Your task to perform on an android device: turn off location history Image 0: 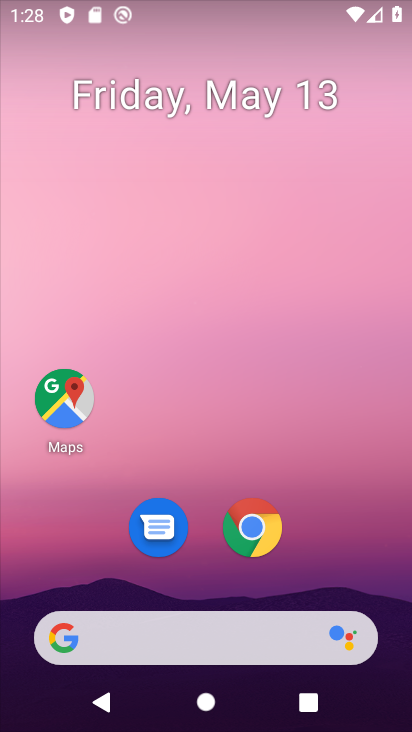
Step 0: drag from (189, 585) to (244, 12)
Your task to perform on an android device: turn off location history Image 1: 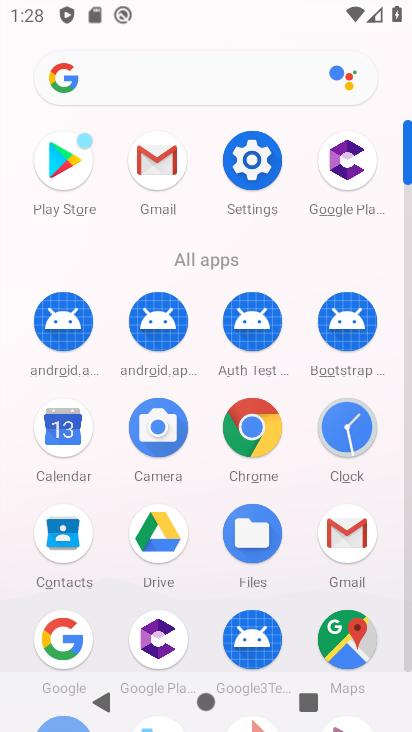
Step 1: click (247, 173)
Your task to perform on an android device: turn off location history Image 2: 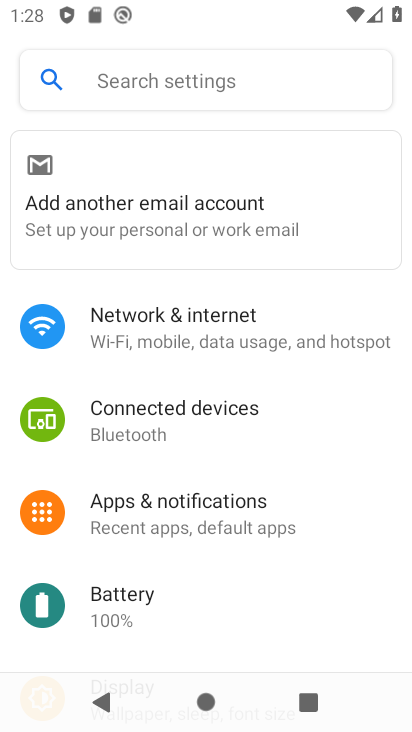
Step 2: drag from (115, 604) to (182, 331)
Your task to perform on an android device: turn off location history Image 3: 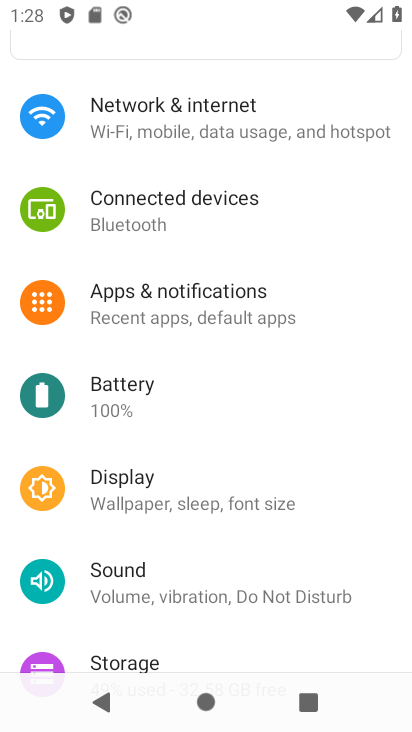
Step 3: drag from (153, 565) to (198, 95)
Your task to perform on an android device: turn off location history Image 4: 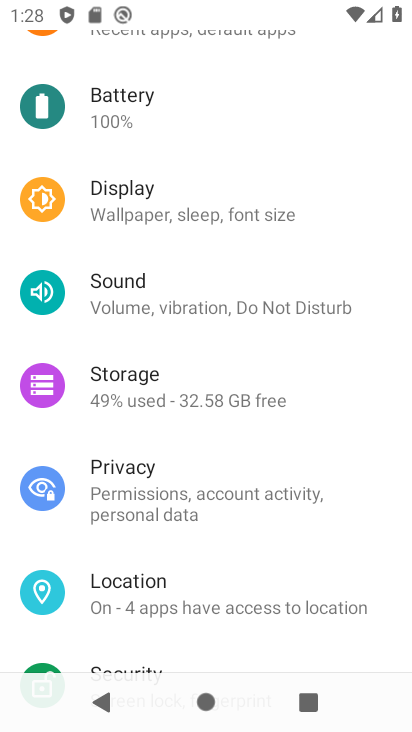
Step 4: click (135, 576)
Your task to perform on an android device: turn off location history Image 5: 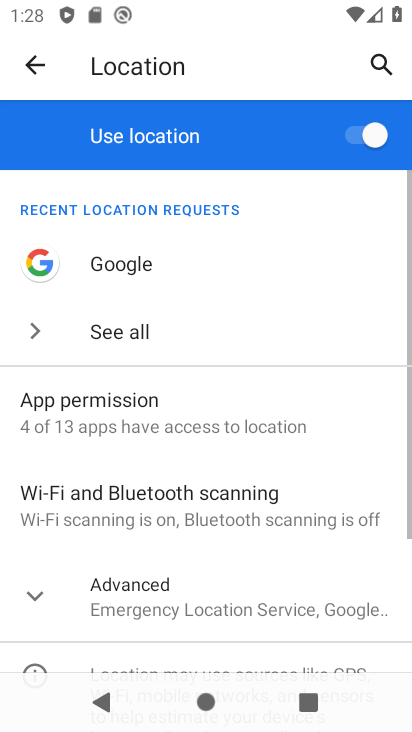
Step 5: drag from (135, 576) to (249, 20)
Your task to perform on an android device: turn off location history Image 6: 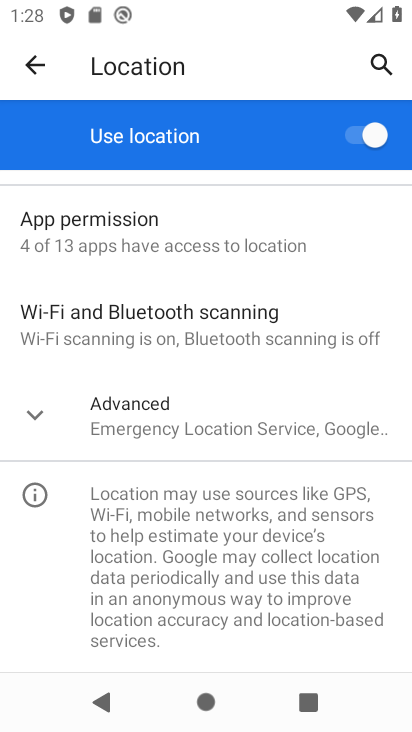
Step 6: drag from (236, 557) to (270, 410)
Your task to perform on an android device: turn off location history Image 7: 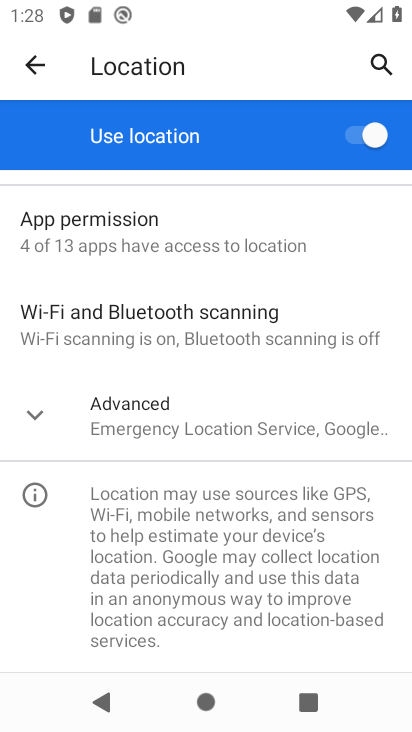
Step 7: click (205, 429)
Your task to perform on an android device: turn off location history Image 8: 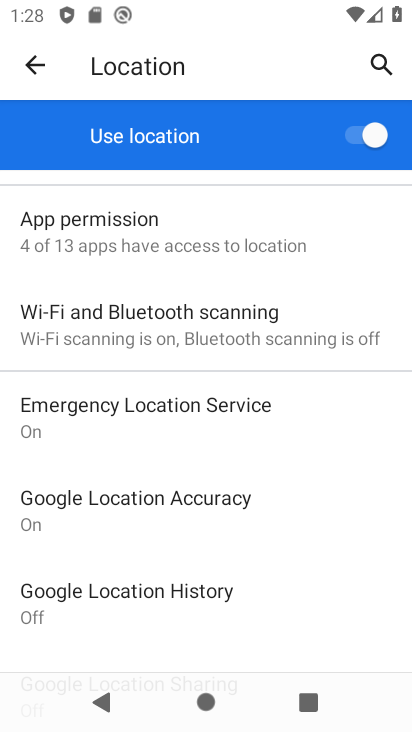
Step 8: click (144, 595)
Your task to perform on an android device: turn off location history Image 9: 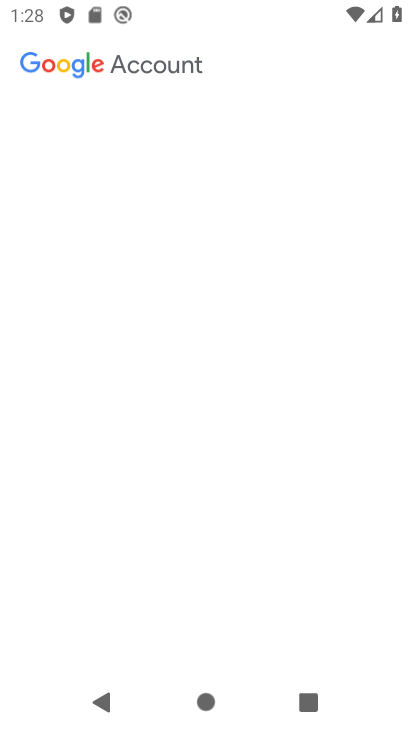
Step 9: task complete